Your task to perform on an android device: Open CNN.com Image 0: 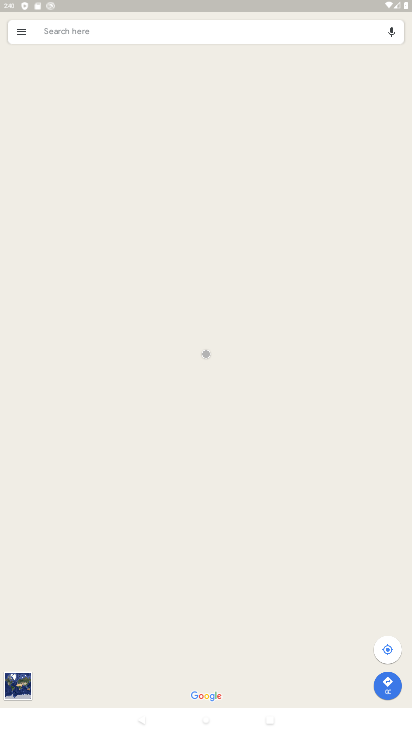
Step 0: press home button
Your task to perform on an android device: Open CNN.com Image 1: 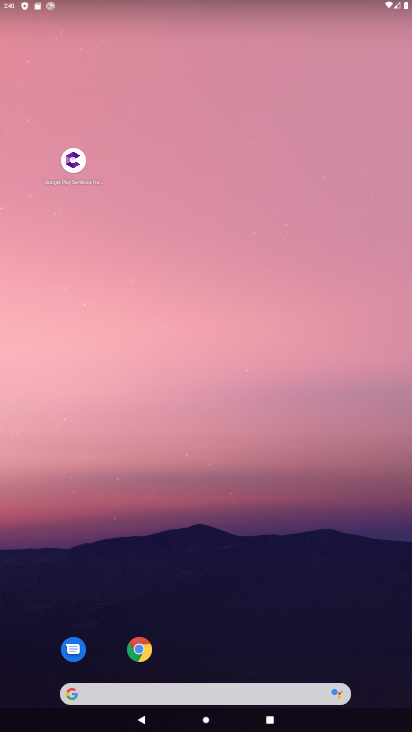
Step 1: drag from (329, 615) to (223, 221)
Your task to perform on an android device: Open CNN.com Image 2: 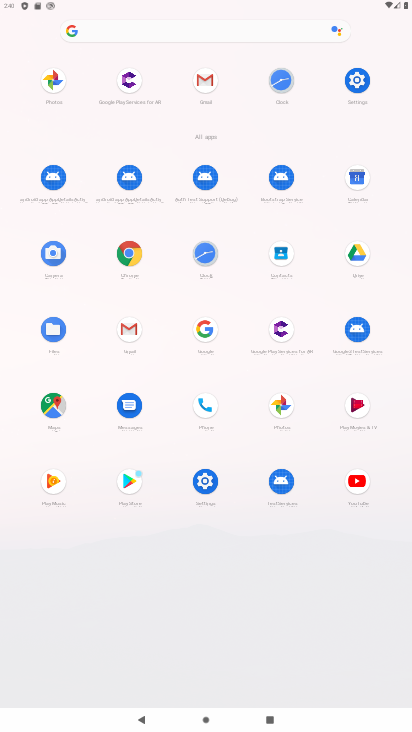
Step 2: click (129, 253)
Your task to perform on an android device: Open CNN.com Image 3: 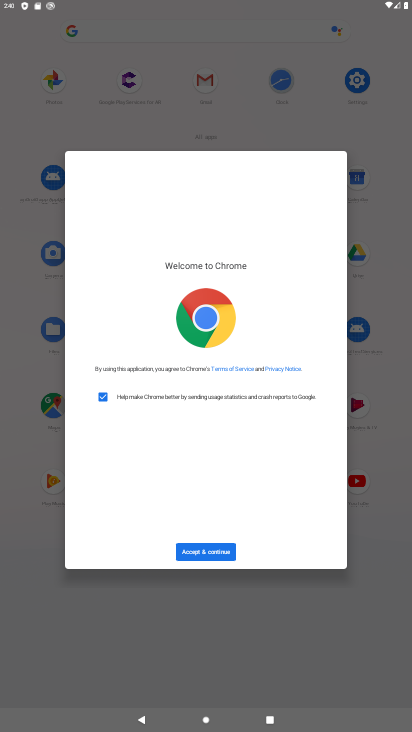
Step 3: click (225, 557)
Your task to perform on an android device: Open CNN.com Image 4: 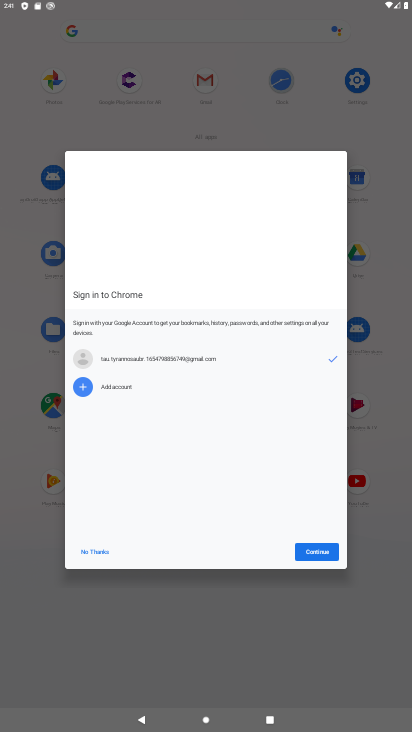
Step 4: click (316, 545)
Your task to perform on an android device: Open CNN.com Image 5: 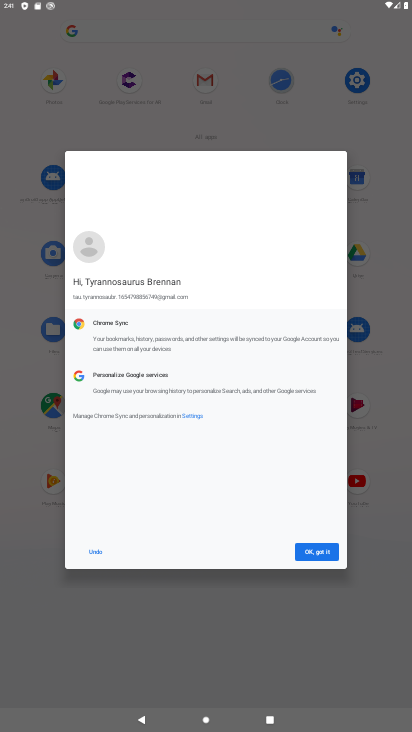
Step 5: click (315, 553)
Your task to perform on an android device: Open CNN.com Image 6: 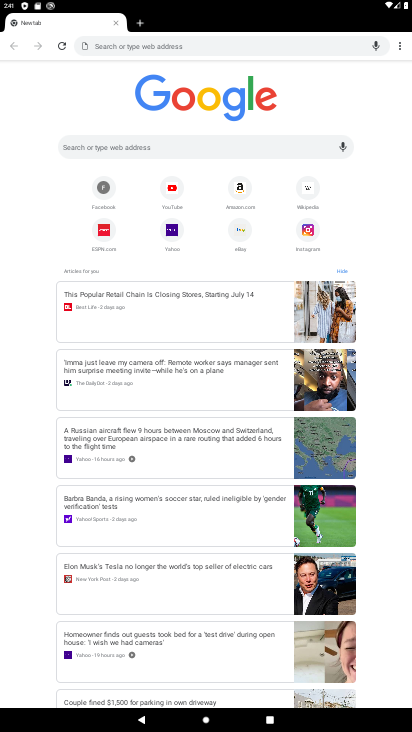
Step 6: click (229, 41)
Your task to perform on an android device: Open CNN.com Image 7: 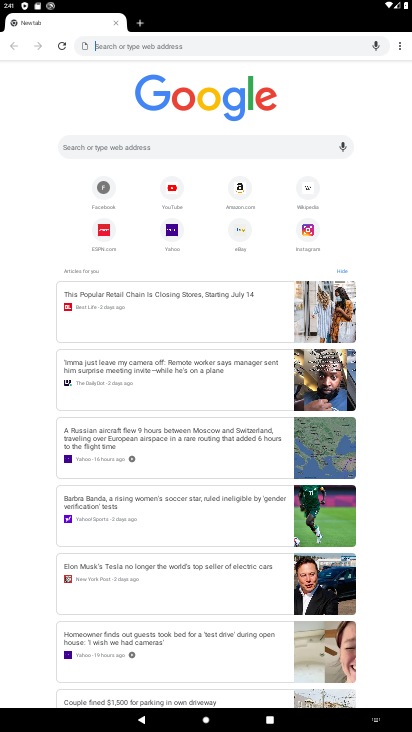
Step 7: type "cnn.com"
Your task to perform on an android device: Open CNN.com Image 8: 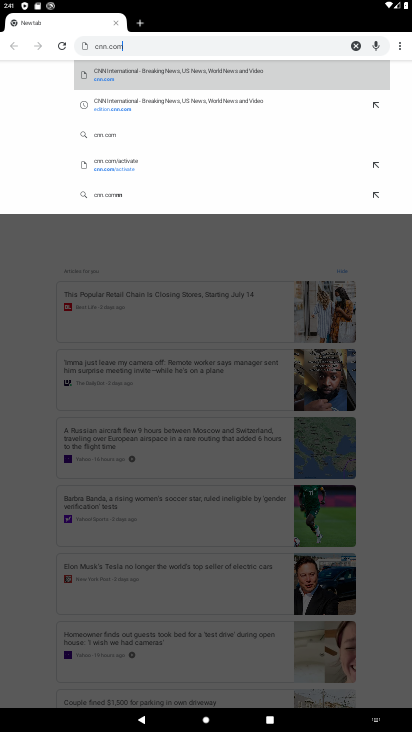
Step 8: click (107, 80)
Your task to perform on an android device: Open CNN.com Image 9: 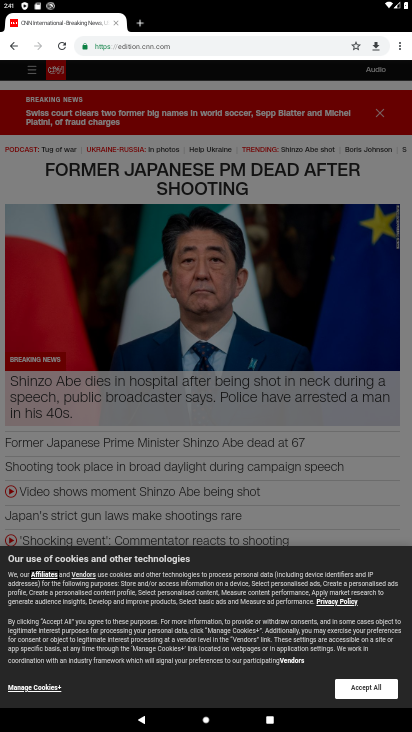
Step 9: task complete